Your task to perform on an android device: turn off data saver in the chrome app Image 0: 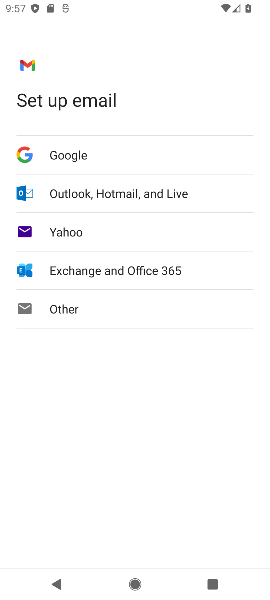
Step 0: press home button
Your task to perform on an android device: turn off data saver in the chrome app Image 1: 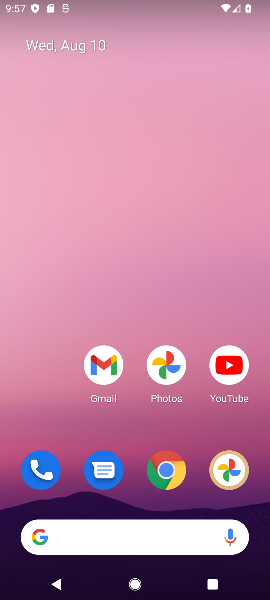
Step 1: click (157, 470)
Your task to perform on an android device: turn off data saver in the chrome app Image 2: 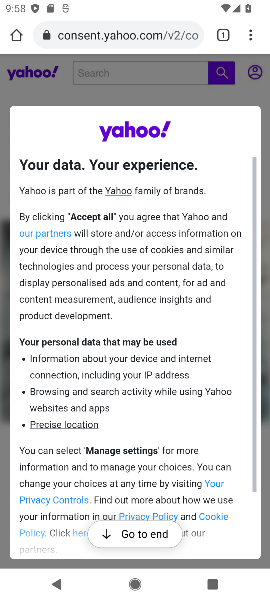
Step 2: click (258, 27)
Your task to perform on an android device: turn off data saver in the chrome app Image 3: 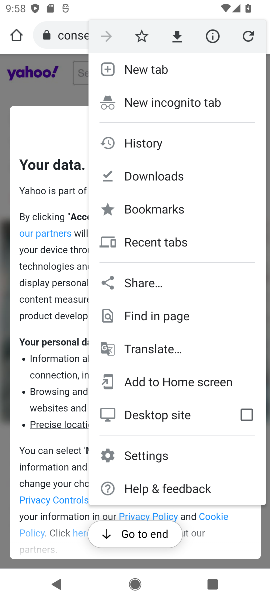
Step 3: click (151, 458)
Your task to perform on an android device: turn off data saver in the chrome app Image 4: 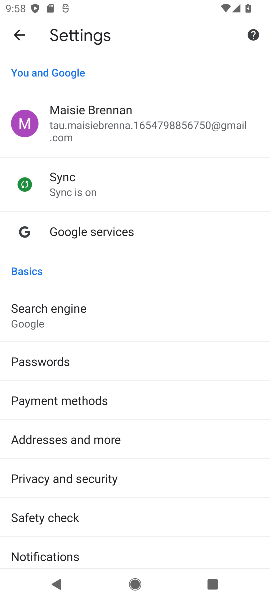
Step 4: drag from (117, 535) to (152, 88)
Your task to perform on an android device: turn off data saver in the chrome app Image 5: 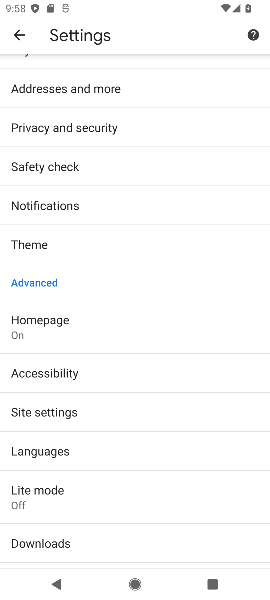
Step 5: click (46, 486)
Your task to perform on an android device: turn off data saver in the chrome app Image 6: 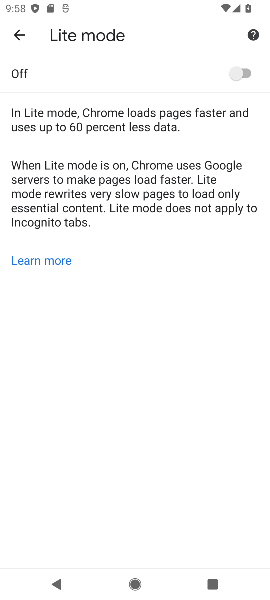
Step 6: task complete